Your task to perform on an android device: Open the calendar app, open the side menu, and click the "Day" option Image 0: 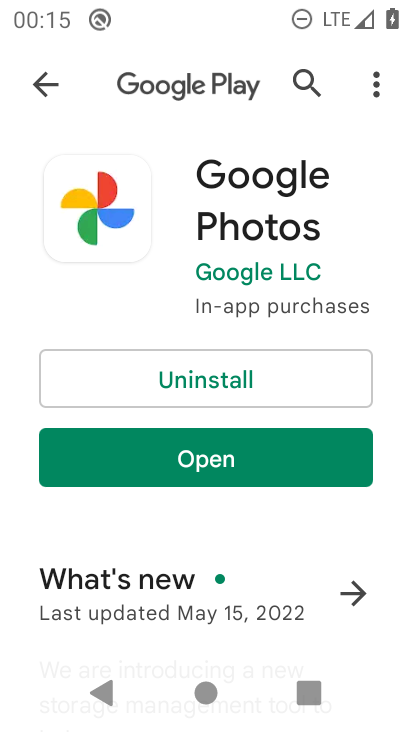
Step 0: press home button
Your task to perform on an android device: Open the calendar app, open the side menu, and click the "Day" option Image 1: 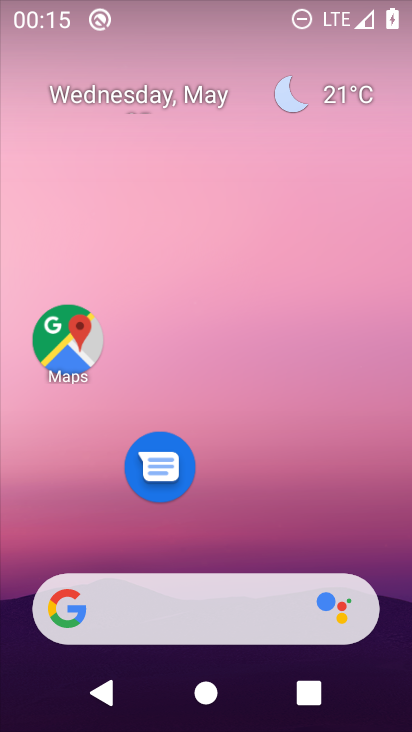
Step 1: drag from (197, 539) to (206, 155)
Your task to perform on an android device: Open the calendar app, open the side menu, and click the "Day" option Image 2: 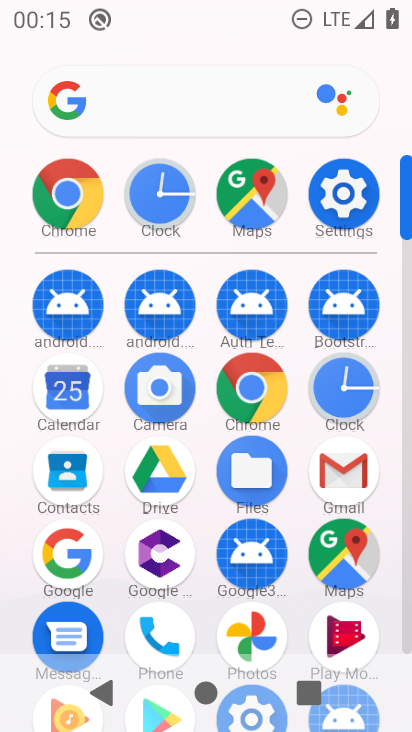
Step 2: click (60, 391)
Your task to perform on an android device: Open the calendar app, open the side menu, and click the "Day" option Image 3: 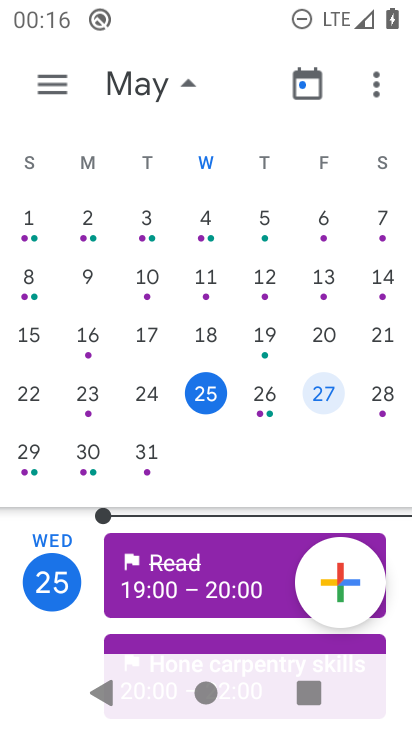
Step 3: click (57, 79)
Your task to perform on an android device: Open the calendar app, open the side menu, and click the "Day" option Image 4: 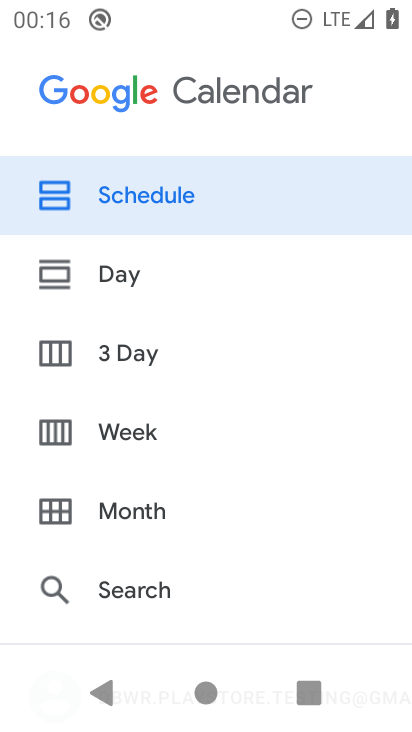
Step 4: click (146, 267)
Your task to perform on an android device: Open the calendar app, open the side menu, and click the "Day" option Image 5: 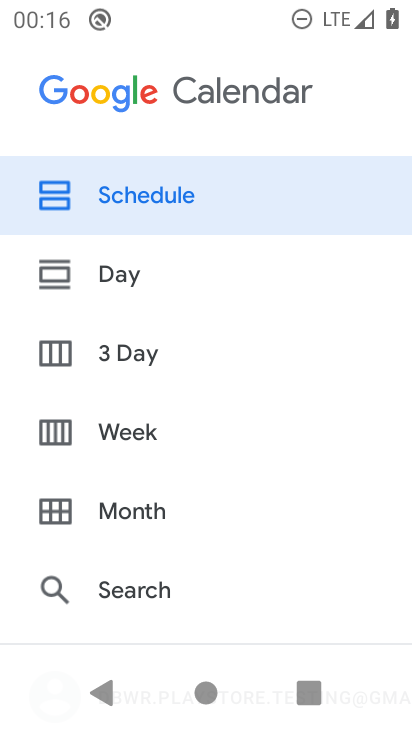
Step 5: click (145, 275)
Your task to perform on an android device: Open the calendar app, open the side menu, and click the "Day" option Image 6: 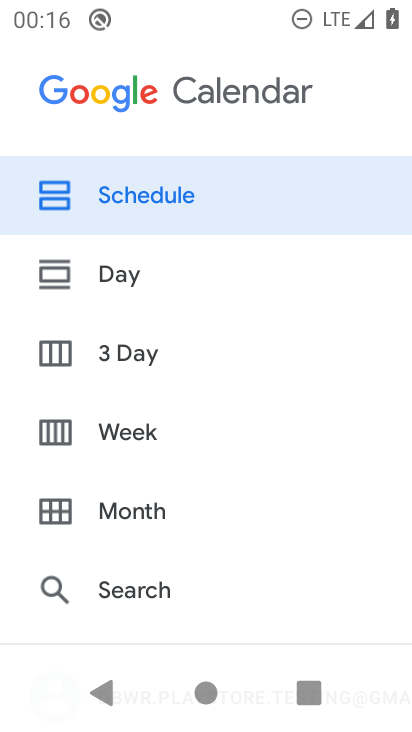
Step 6: click (127, 277)
Your task to perform on an android device: Open the calendar app, open the side menu, and click the "Day" option Image 7: 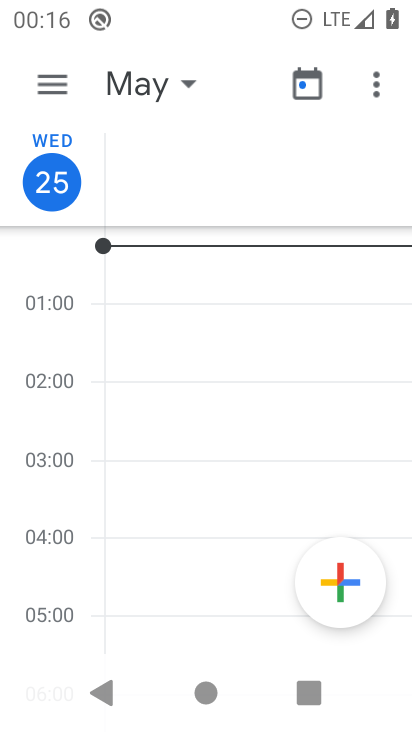
Step 7: click (54, 66)
Your task to perform on an android device: Open the calendar app, open the side menu, and click the "Day" option Image 8: 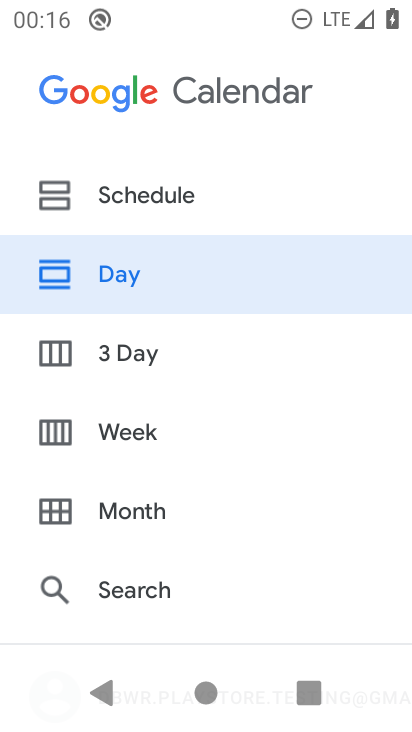
Step 8: click (162, 273)
Your task to perform on an android device: Open the calendar app, open the side menu, and click the "Day" option Image 9: 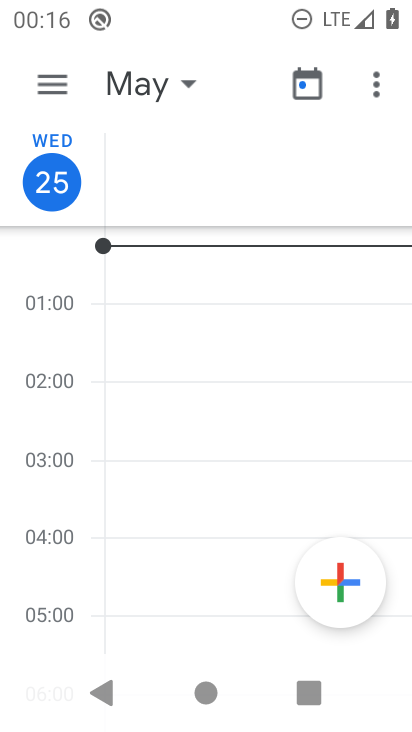
Step 9: task complete